Your task to perform on an android device: Show the shopping cart on bestbuy.com. Image 0: 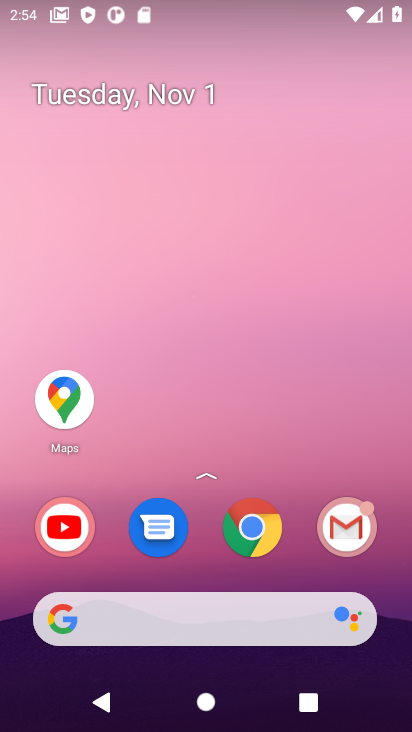
Step 0: click (186, 619)
Your task to perform on an android device: Show the shopping cart on bestbuy.com. Image 1: 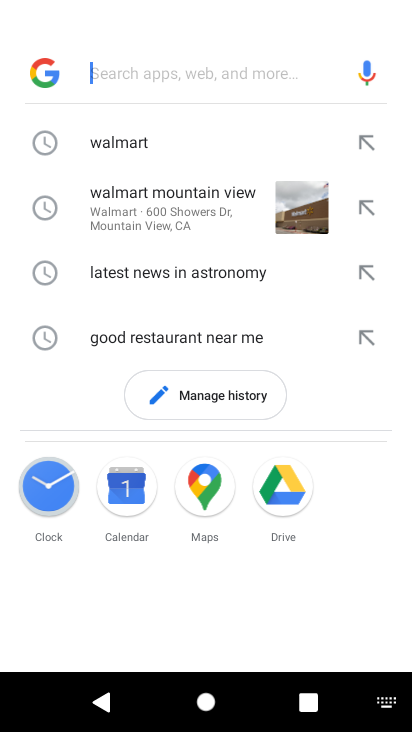
Step 1: type "bestbuy.com"
Your task to perform on an android device: Show the shopping cart on bestbuy.com. Image 2: 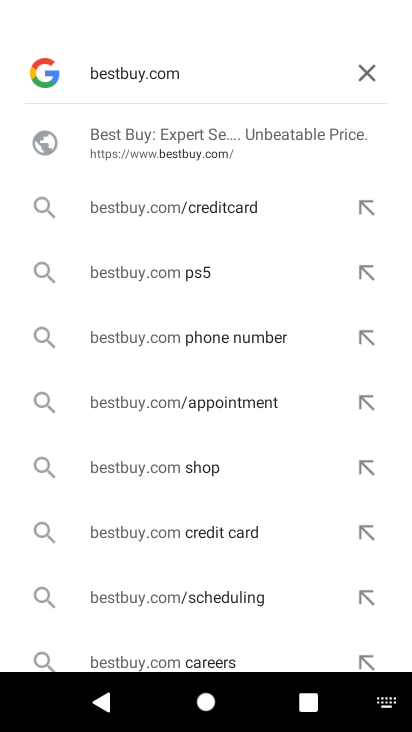
Step 2: click (170, 136)
Your task to perform on an android device: Show the shopping cart on bestbuy.com. Image 3: 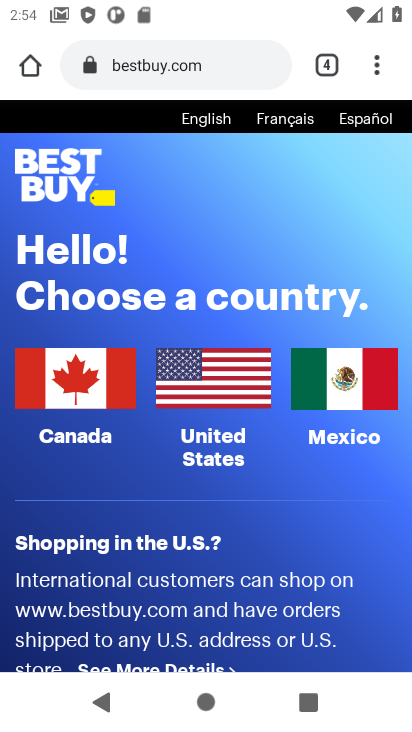
Step 3: click (193, 401)
Your task to perform on an android device: Show the shopping cart on bestbuy.com. Image 4: 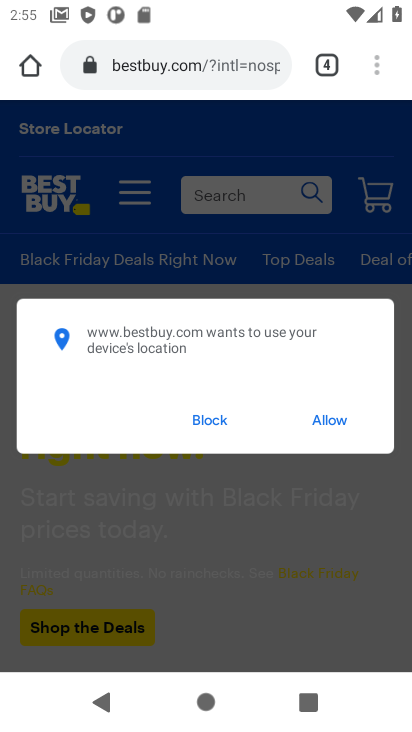
Step 4: click (220, 420)
Your task to perform on an android device: Show the shopping cart on bestbuy.com. Image 5: 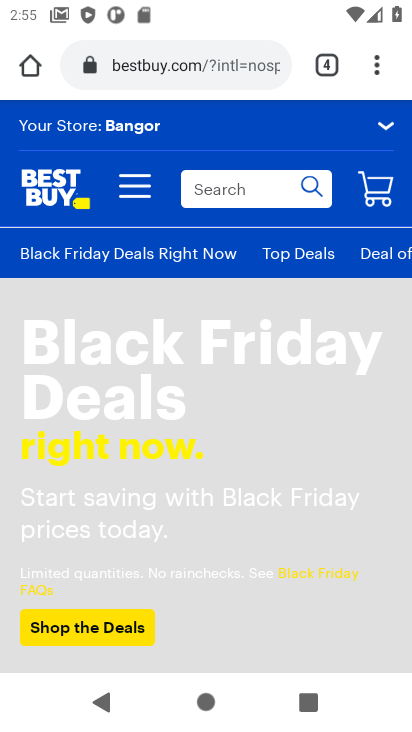
Step 5: click (373, 184)
Your task to perform on an android device: Show the shopping cart on bestbuy.com. Image 6: 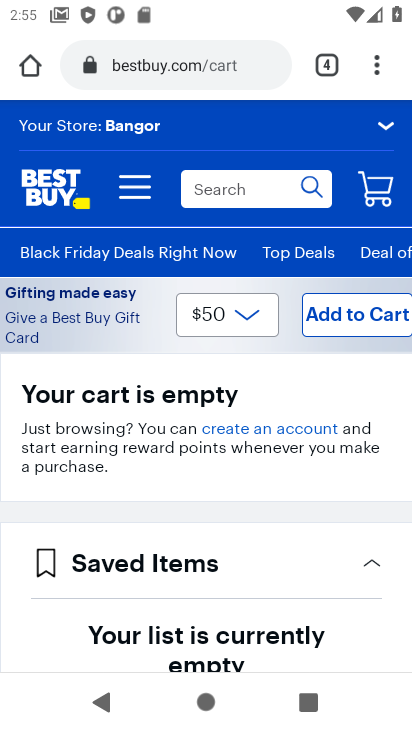
Step 6: task complete